Your task to perform on an android device: snooze an email in the gmail app Image 0: 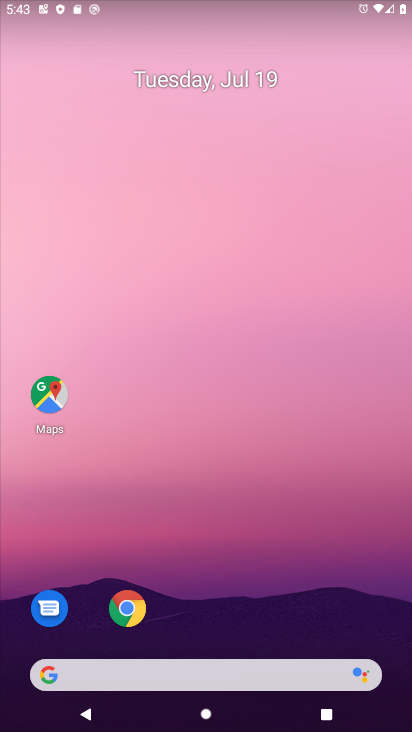
Step 0: drag from (340, 630) to (305, 19)
Your task to perform on an android device: snooze an email in the gmail app Image 1: 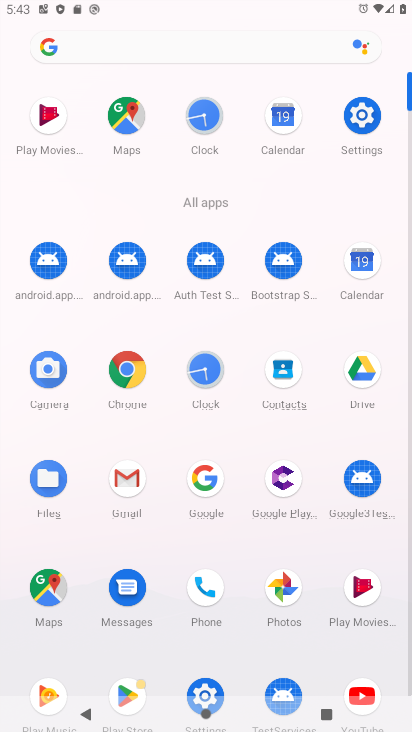
Step 1: click (130, 478)
Your task to perform on an android device: snooze an email in the gmail app Image 2: 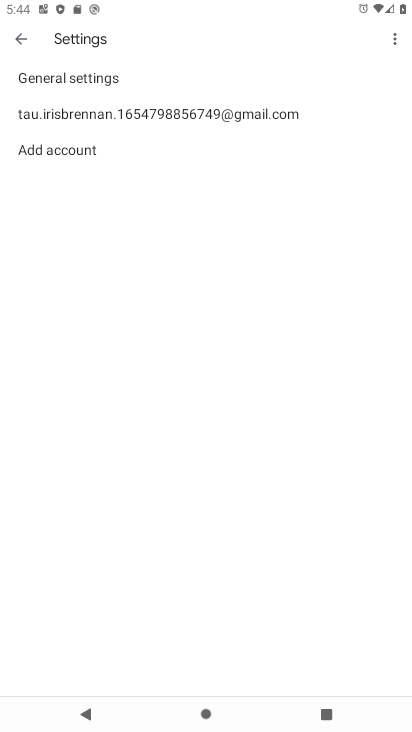
Step 2: press back button
Your task to perform on an android device: snooze an email in the gmail app Image 3: 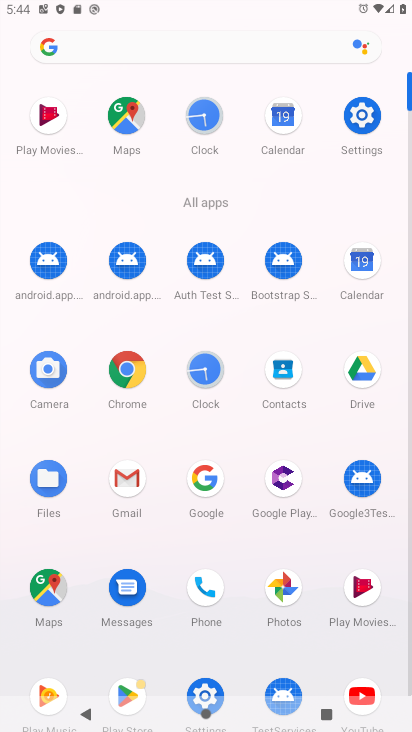
Step 3: click (124, 479)
Your task to perform on an android device: snooze an email in the gmail app Image 4: 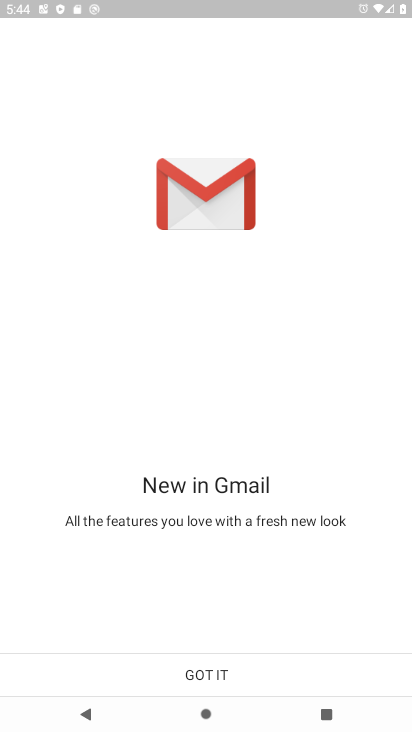
Step 4: click (216, 675)
Your task to perform on an android device: snooze an email in the gmail app Image 5: 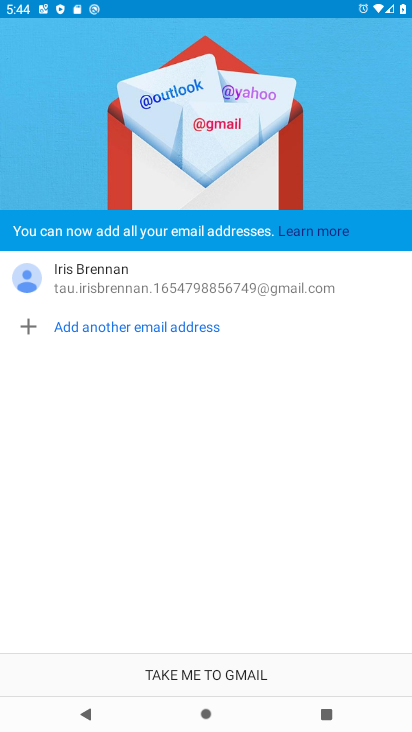
Step 5: click (216, 675)
Your task to perform on an android device: snooze an email in the gmail app Image 6: 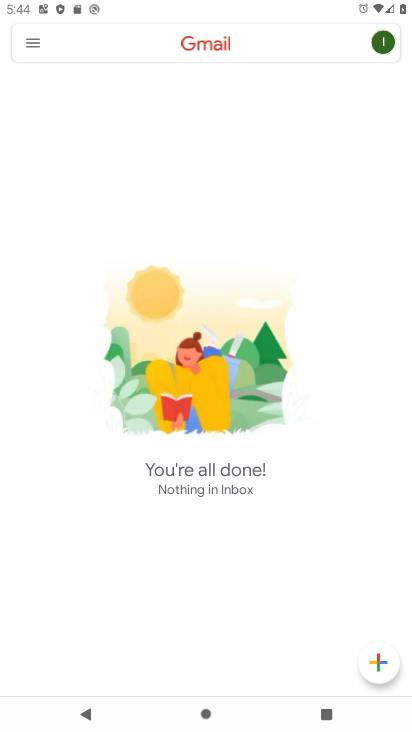
Step 6: click (29, 33)
Your task to perform on an android device: snooze an email in the gmail app Image 7: 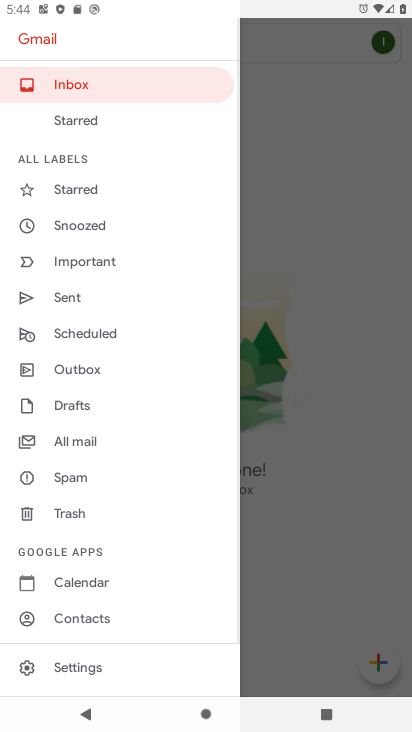
Step 7: click (96, 220)
Your task to perform on an android device: snooze an email in the gmail app Image 8: 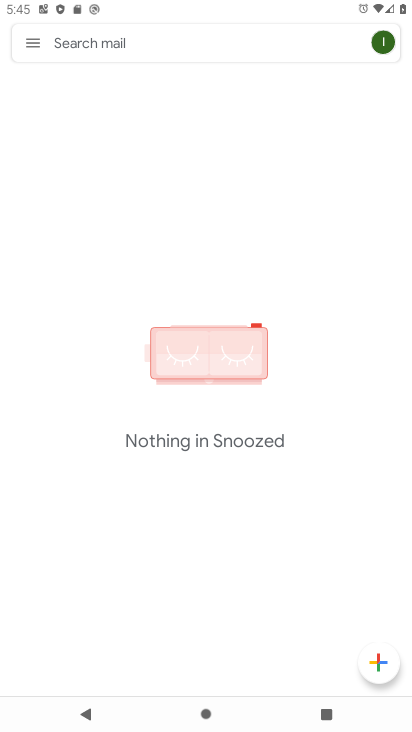
Step 8: task complete